Your task to perform on an android device: turn on translation in the chrome app Image 0: 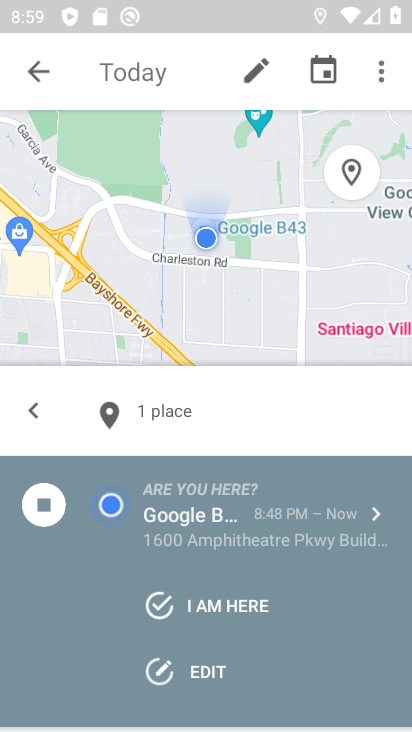
Step 0: press back button
Your task to perform on an android device: turn on translation in the chrome app Image 1: 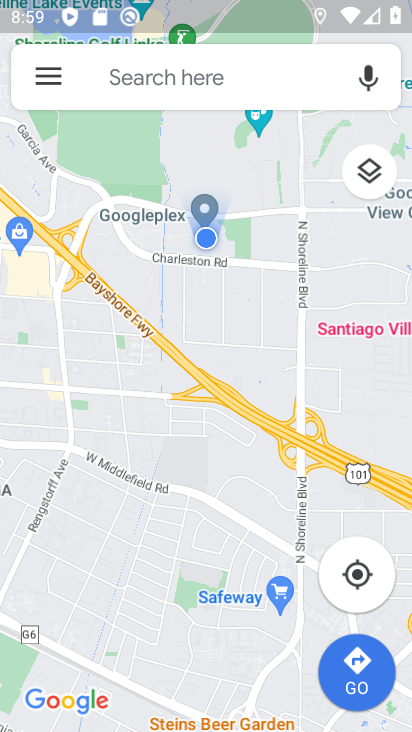
Step 1: press back button
Your task to perform on an android device: turn on translation in the chrome app Image 2: 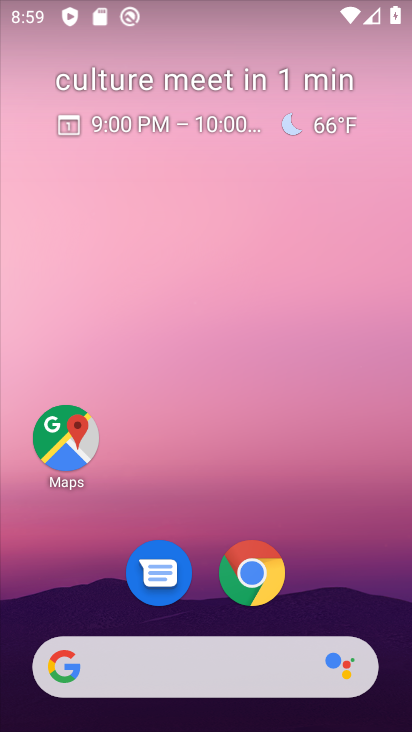
Step 2: click (259, 567)
Your task to perform on an android device: turn on translation in the chrome app Image 3: 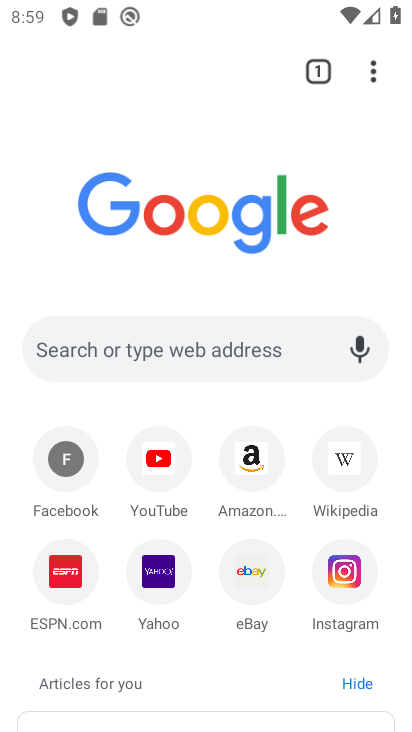
Step 3: drag from (372, 70) to (127, 607)
Your task to perform on an android device: turn on translation in the chrome app Image 4: 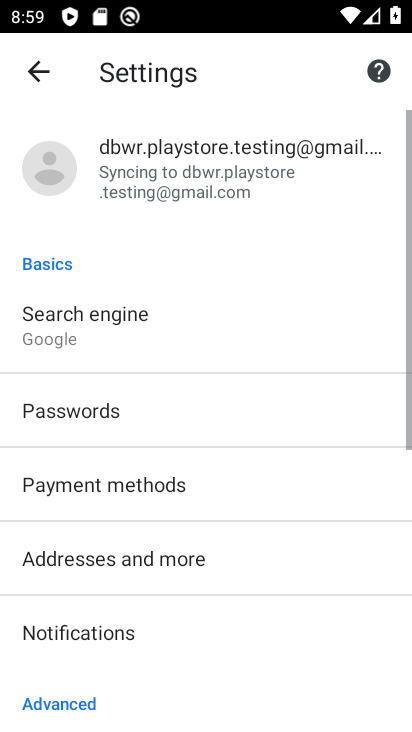
Step 4: drag from (115, 614) to (211, 169)
Your task to perform on an android device: turn on translation in the chrome app Image 5: 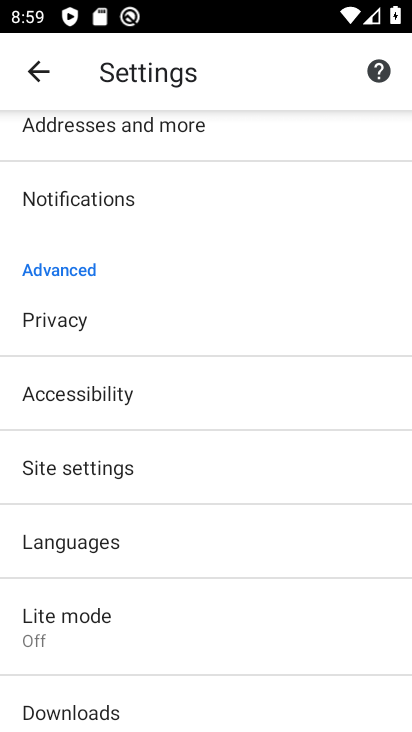
Step 5: click (82, 555)
Your task to perform on an android device: turn on translation in the chrome app Image 6: 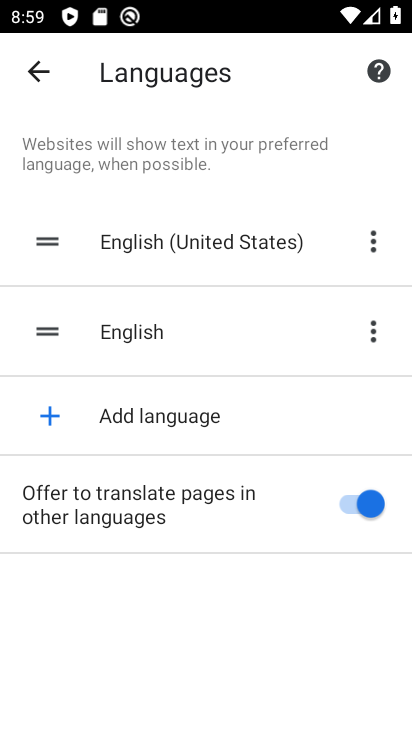
Step 6: task complete